Your task to perform on an android device: turn on javascript in the chrome app Image 0: 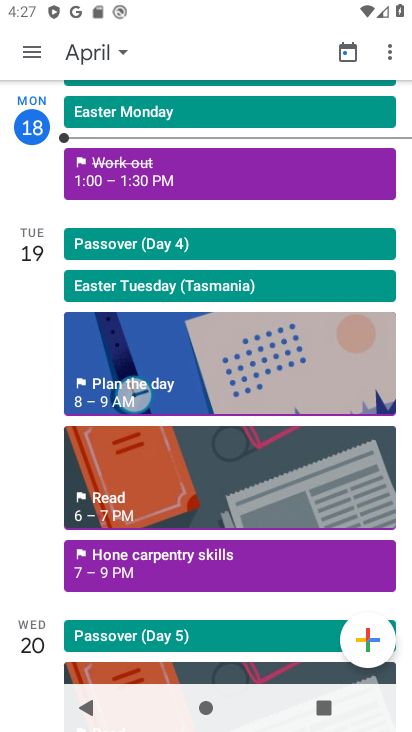
Step 0: press home button
Your task to perform on an android device: turn on javascript in the chrome app Image 1: 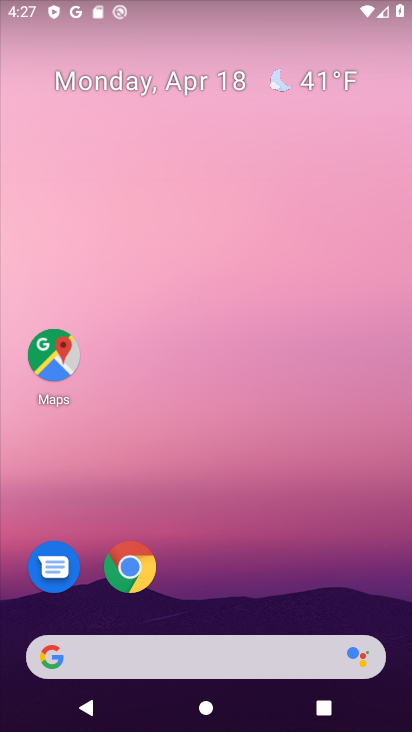
Step 1: click (128, 569)
Your task to perform on an android device: turn on javascript in the chrome app Image 2: 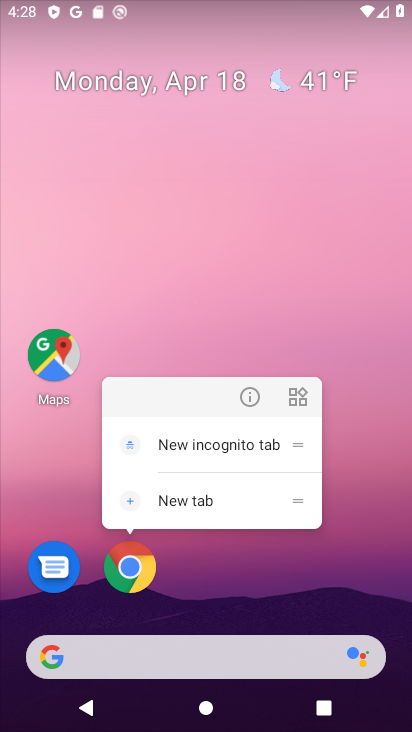
Step 2: click (129, 562)
Your task to perform on an android device: turn on javascript in the chrome app Image 3: 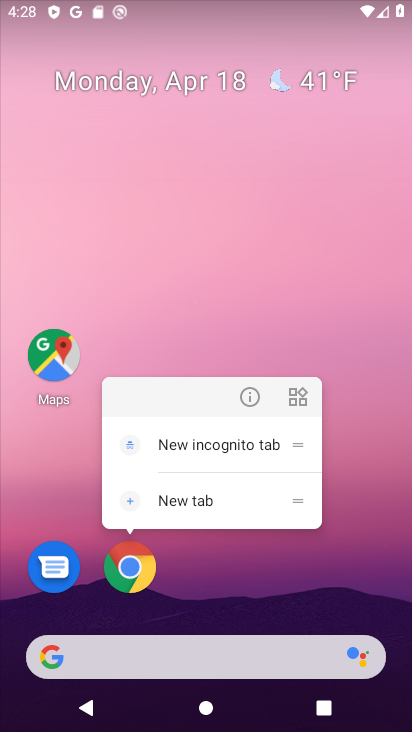
Step 3: click (129, 569)
Your task to perform on an android device: turn on javascript in the chrome app Image 4: 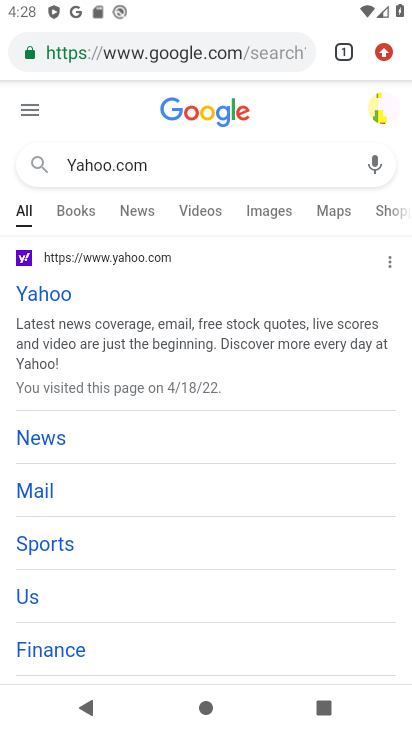
Step 4: click (386, 53)
Your task to perform on an android device: turn on javascript in the chrome app Image 5: 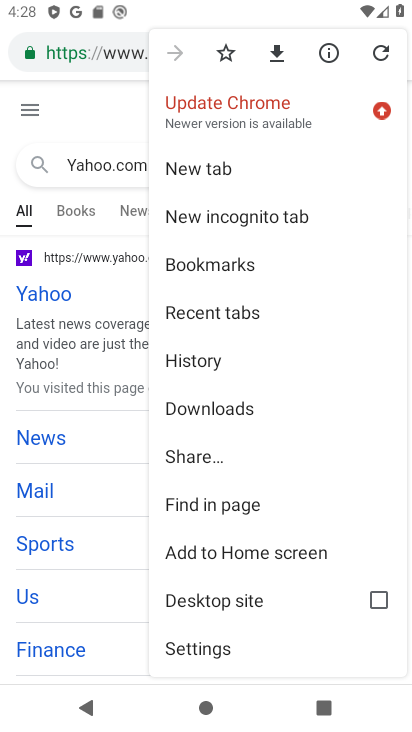
Step 5: click (215, 648)
Your task to perform on an android device: turn on javascript in the chrome app Image 6: 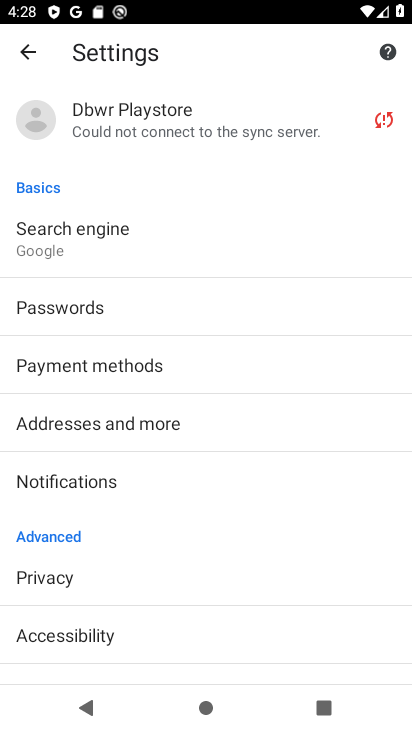
Step 6: drag from (157, 570) to (200, 458)
Your task to perform on an android device: turn on javascript in the chrome app Image 7: 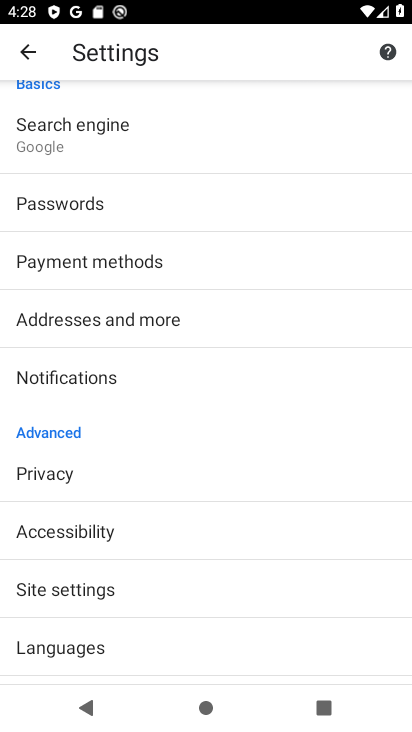
Step 7: drag from (150, 579) to (164, 496)
Your task to perform on an android device: turn on javascript in the chrome app Image 8: 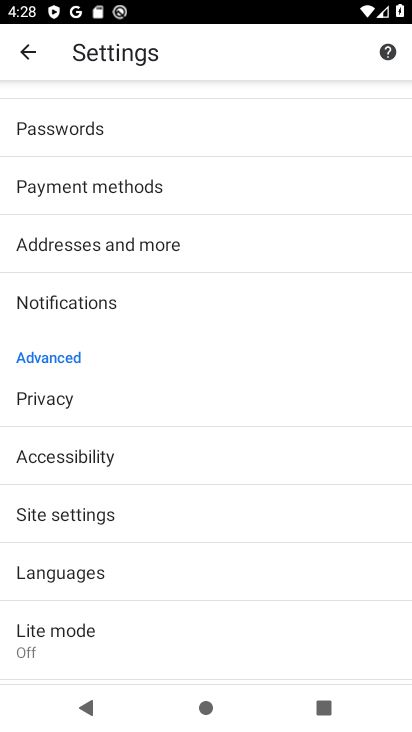
Step 8: click (80, 518)
Your task to perform on an android device: turn on javascript in the chrome app Image 9: 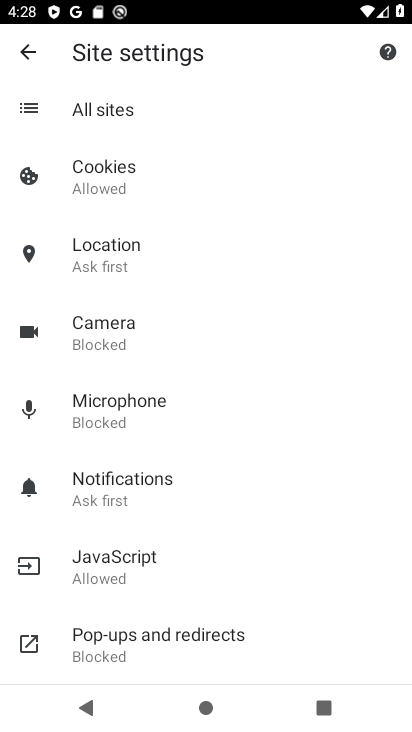
Step 9: drag from (162, 586) to (163, 486)
Your task to perform on an android device: turn on javascript in the chrome app Image 10: 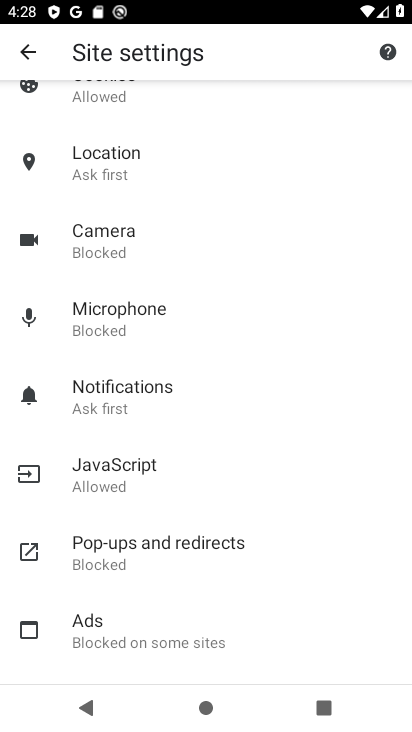
Step 10: drag from (97, 513) to (147, 426)
Your task to perform on an android device: turn on javascript in the chrome app Image 11: 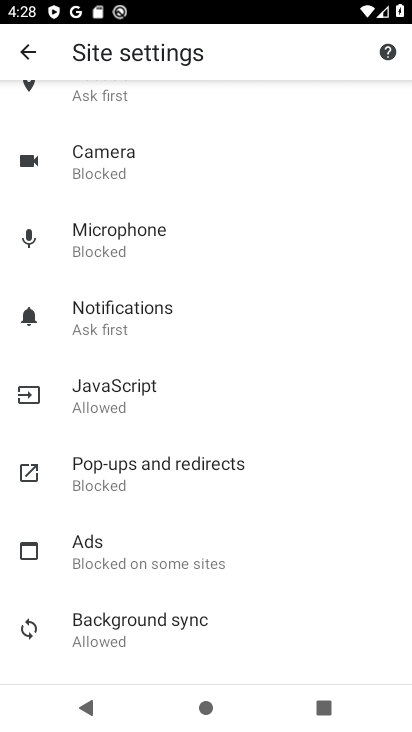
Step 11: drag from (153, 549) to (181, 416)
Your task to perform on an android device: turn on javascript in the chrome app Image 12: 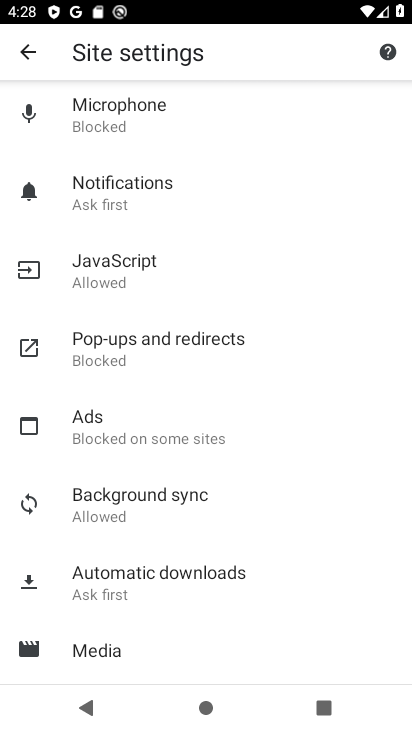
Step 12: click (117, 265)
Your task to perform on an android device: turn on javascript in the chrome app Image 13: 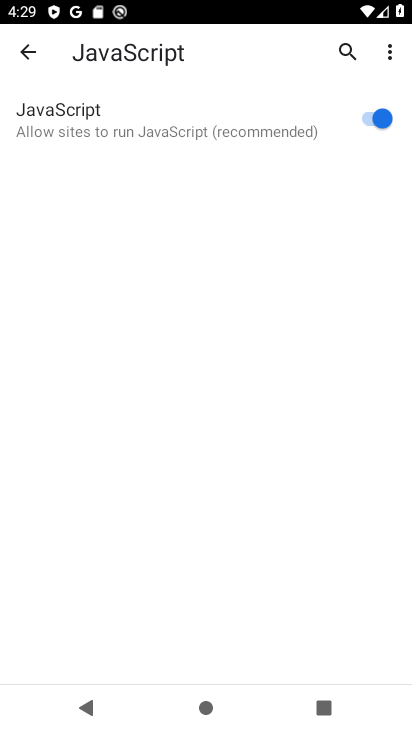
Step 13: task complete